Your task to perform on an android device: open app "Fetch Rewards" (install if not already installed) and enter user name: "Westwood@yahoo.com" and password: "qualifying" Image 0: 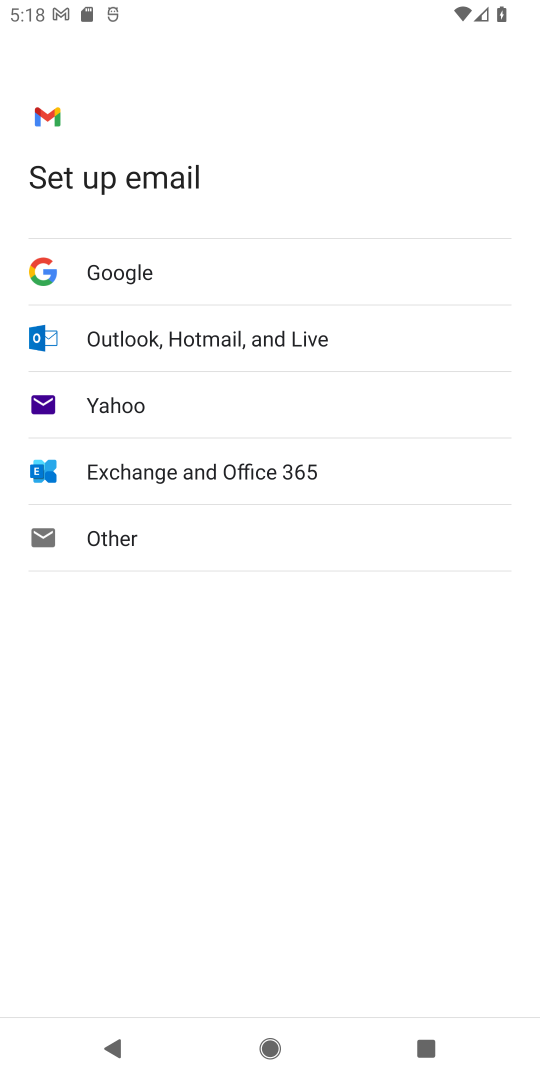
Step 0: press home button
Your task to perform on an android device: open app "Fetch Rewards" (install if not already installed) and enter user name: "Westwood@yahoo.com" and password: "qualifying" Image 1: 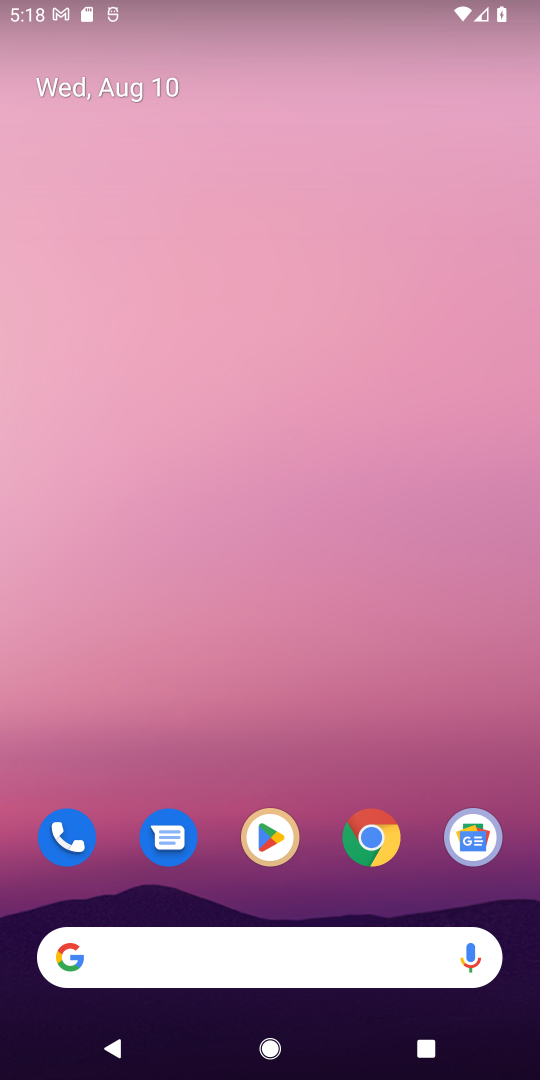
Step 1: click (258, 833)
Your task to perform on an android device: open app "Fetch Rewards" (install if not already installed) and enter user name: "Westwood@yahoo.com" and password: "qualifying" Image 2: 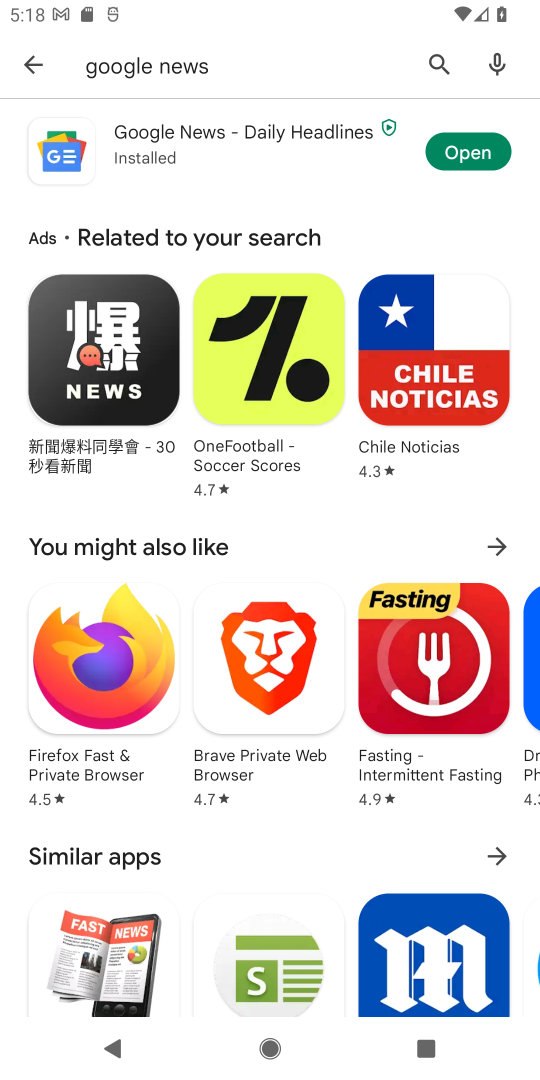
Step 2: click (439, 62)
Your task to perform on an android device: open app "Fetch Rewards" (install if not already installed) and enter user name: "Westwood@yahoo.com" and password: "qualifying" Image 3: 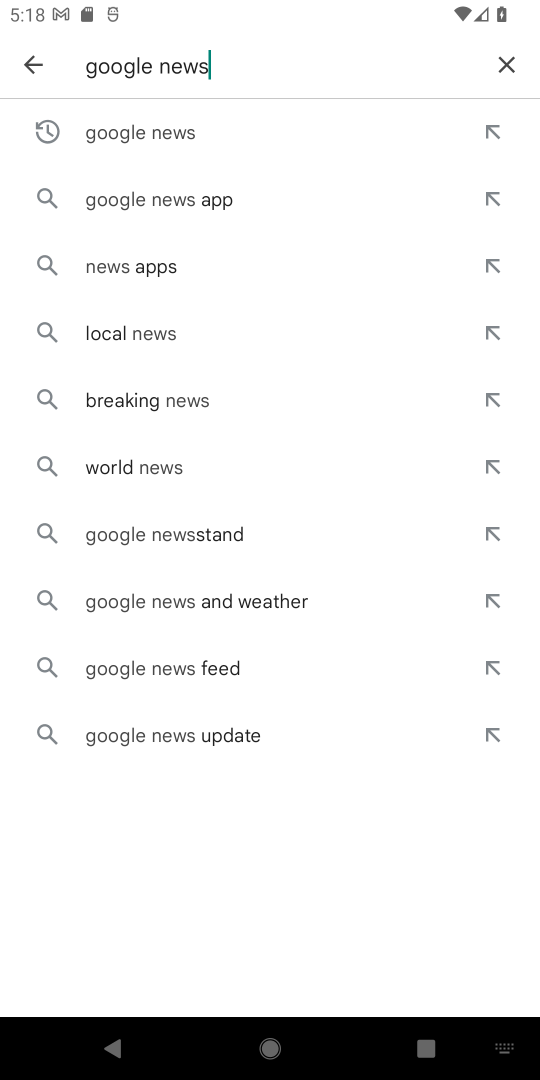
Step 3: click (502, 64)
Your task to perform on an android device: open app "Fetch Rewards" (install if not already installed) and enter user name: "Westwood@yahoo.com" and password: "qualifying" Image 4: 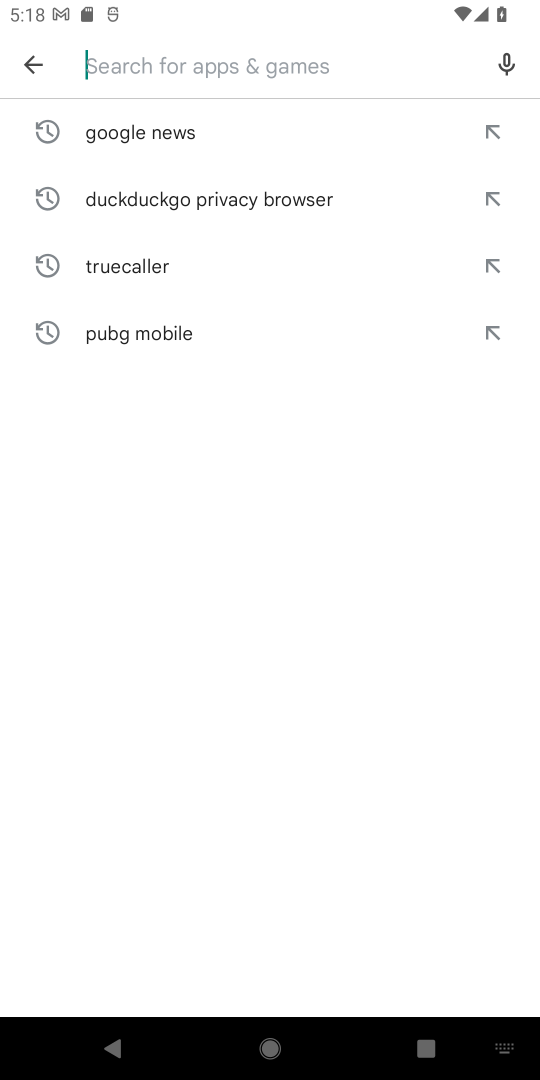
Step 4: type "Fetch Rewards"
Your task to perform on an android device: open app "Fetch Rewards" (install if not already installed) and enter user name: "Westwood@yahoo.com" and password: "qualifying" Image 5: 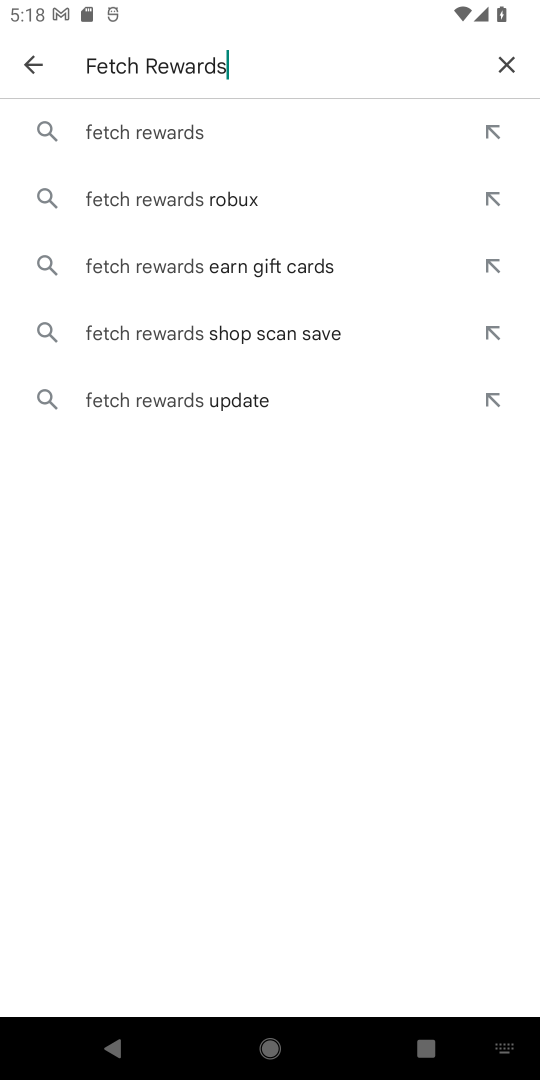
Step 5: click (152, 138)
Your task to perform on an android device: open app "Fetch Rewards" (install if not already installed) and enter user name: "Westwood@yahoo.com" and password: "qualifying" Image 6: 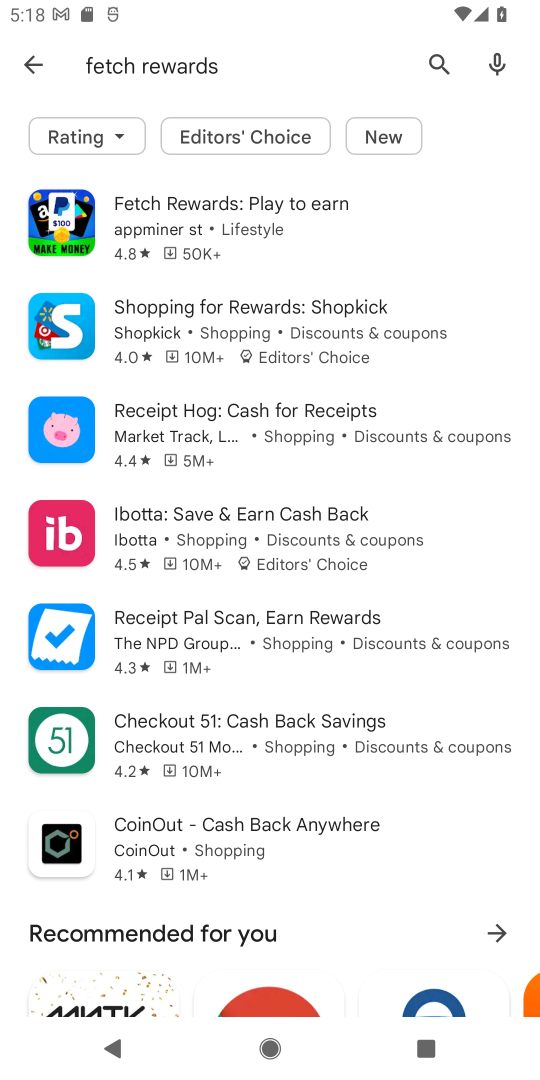
Step 6: click (239, 229)
Your task to perform on an android device: open app "Fetch Rewards" (install if not already installed) and enter user name: "Westwood@yahoo.com" and password: "qualifying" Image 7: 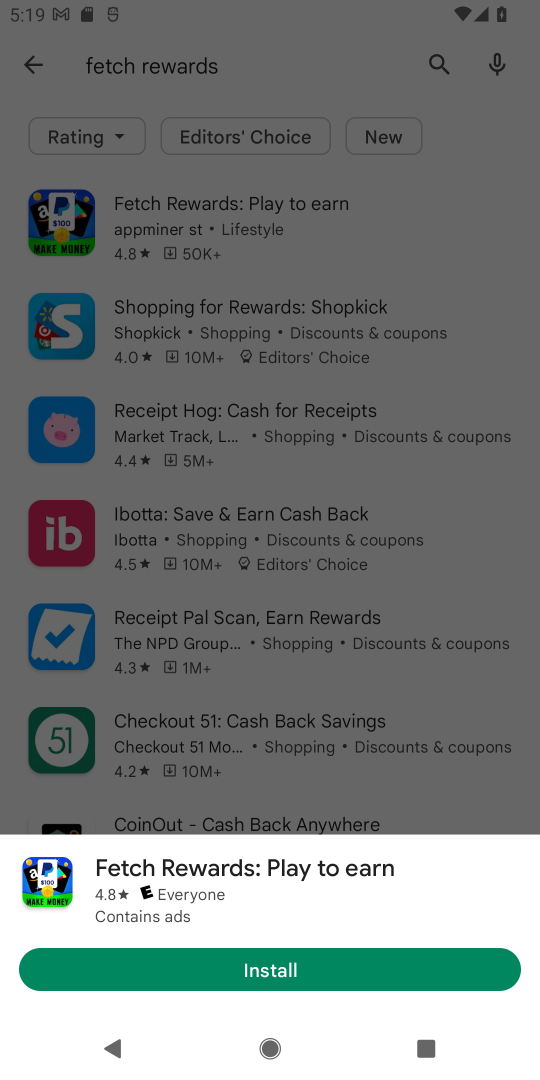
Step 7: click (311, 967)
Your task to perform on an android device: open app "Fetch Rewards" (install if not already installed) and enter user name: "Westwood@yahoo.com" and password: "qualifying" Image 8: 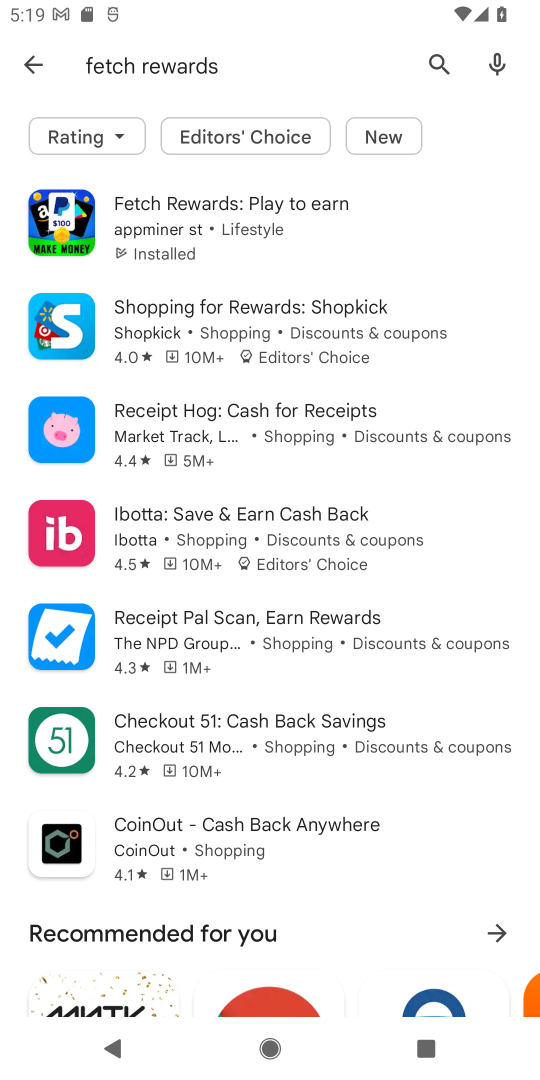
Step 8: click (151, 224)
Your task to perform on an android device: open app "Fetch Rewards" (install if not already installed) and enter user name: "Westwood@yahoo.com" and password: "qualifying" Image 9: 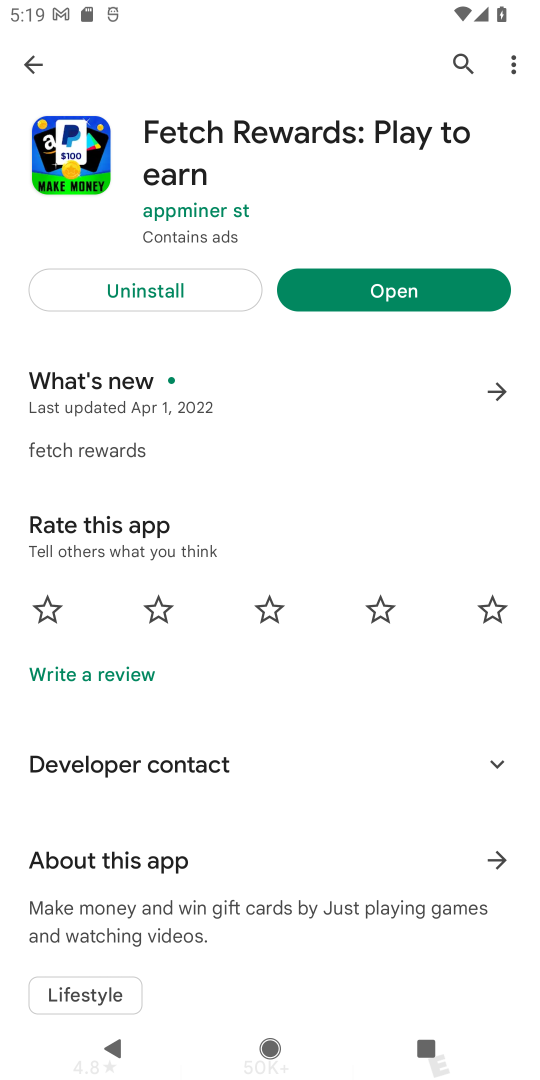
Step 9: click (392, 301)
Your task to perform on an android device: open app "Fetch Rewards" (install if not already installed) and enter user name: "Westwood@yahoo.com" and password: "qualifying" Image 10: 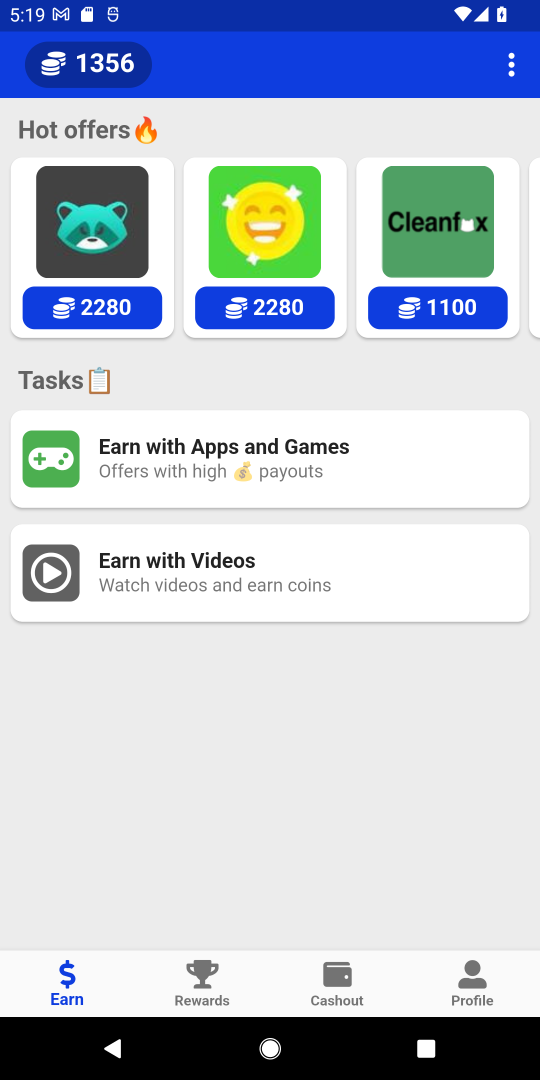
Step 10: task complete